Your task to perform on an android device: turn off notifications settings in the gmail app Image 0: 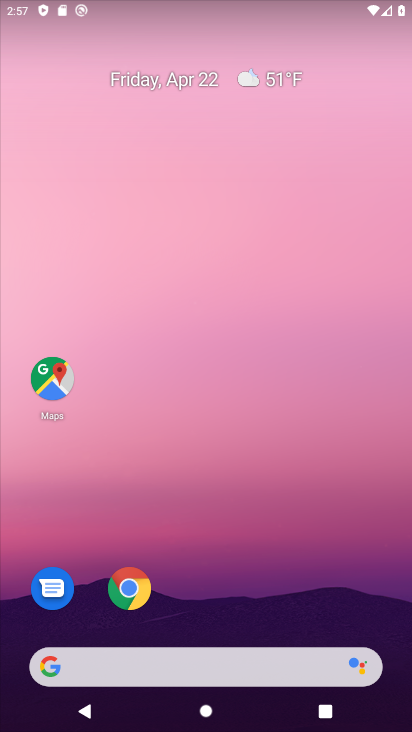
Step 0: drag from (358, 588) to (369, 111)
Your task to perform on an android device: turn off notifications settings in the gmail app Image 1: 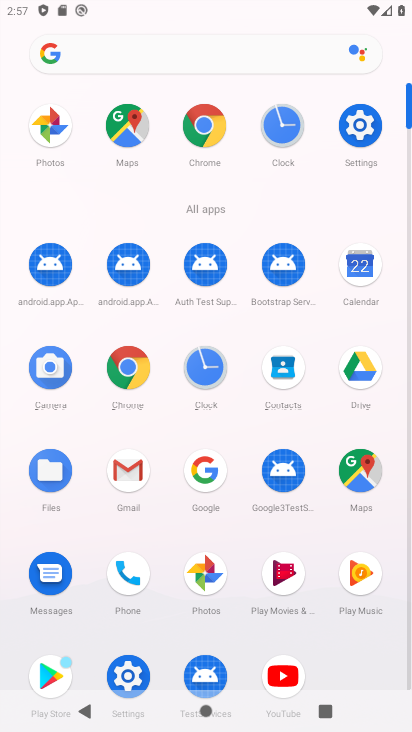
Step 1: click (136, 470)
Your task to perform on an android device: turn off notifications settings in the gmail app Image 2: 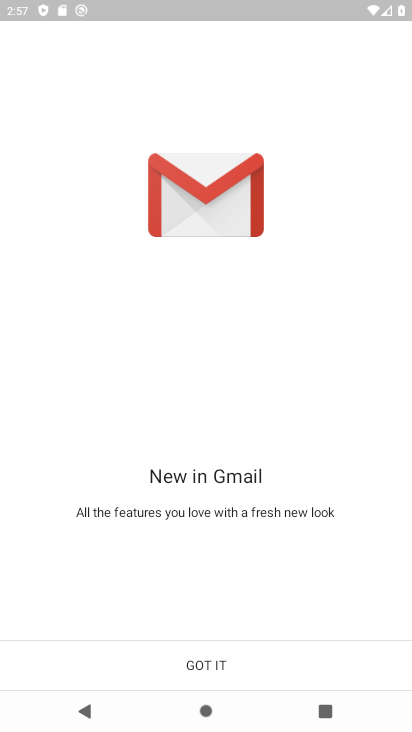
Step 2: click (242, 655)
Your task to perform on an android device: turn off notifications settings in the gmail app Image 3: 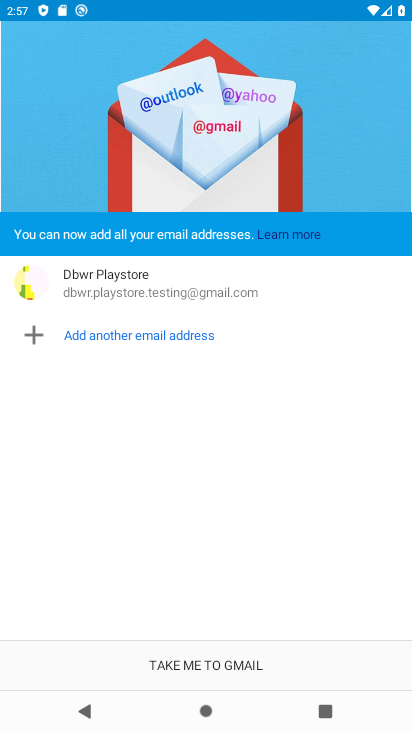
Step 3: click (252, 664)
Your task to perform on an android device: turn off notifications settings in the gmail app Image 4: 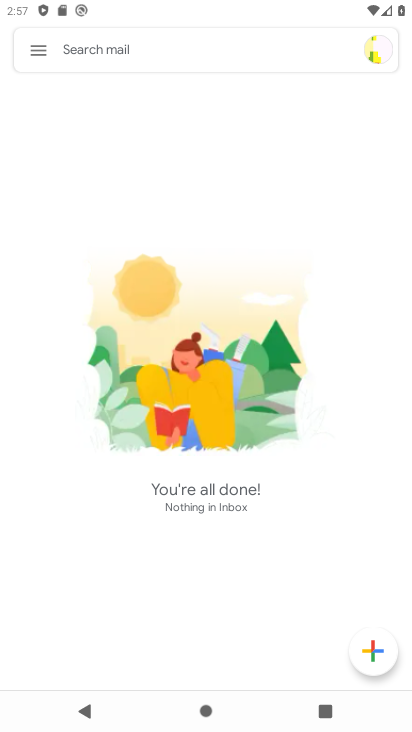
Step 4: click (37, 45)
Your task to perform on an android device: turn off notifications settings in the gmail app Image 5: 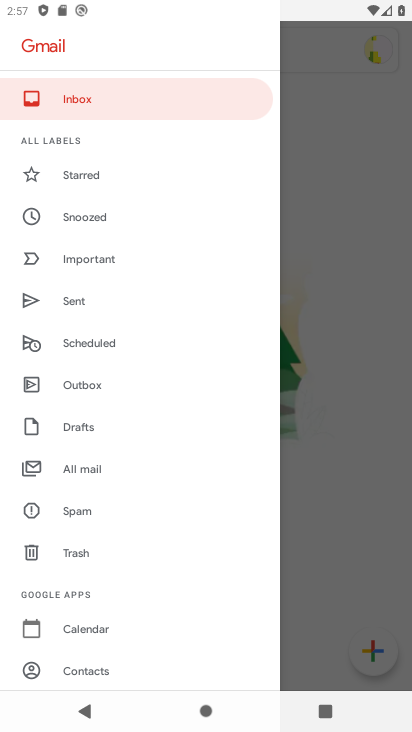
Step 5: drag from (177, 594) to (189, 348)
Your task to perform on an android device: turn off notifications settings in the gmail app Image 6: 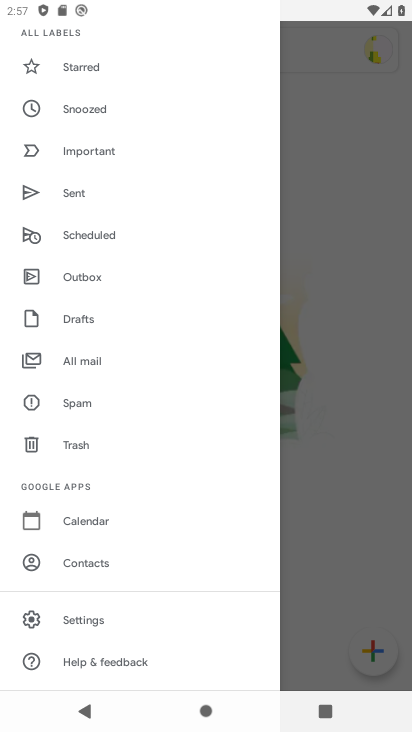
Step 6: click (112, 622)
Your task to perform on an android device: turn off notifications settings in the gmail app Image 7: 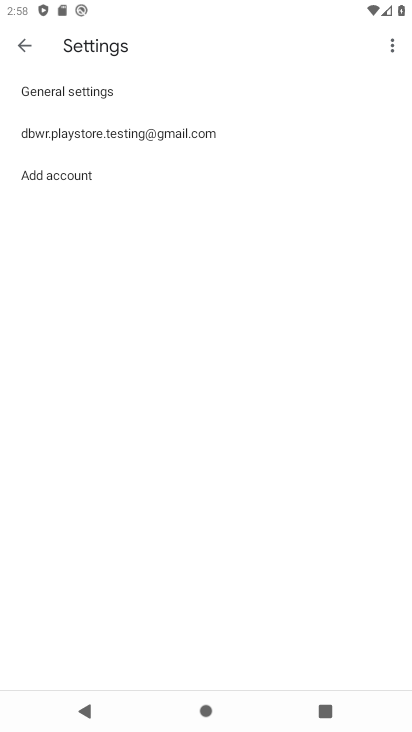
Step 7: click (181, 127)
Your task to perform on an android device: turn off notifications settings in the gmail app Image 8: 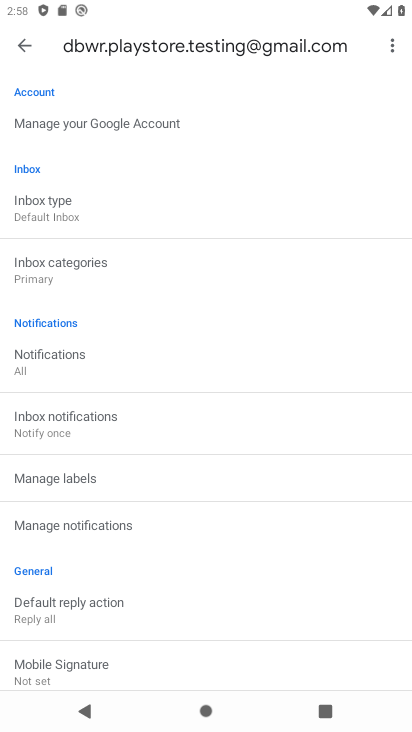
Step 8: drag from (251, 587) to (261, 429)
Your task to perform on an android device: turn off notifications settings in the gmail app Image 9: 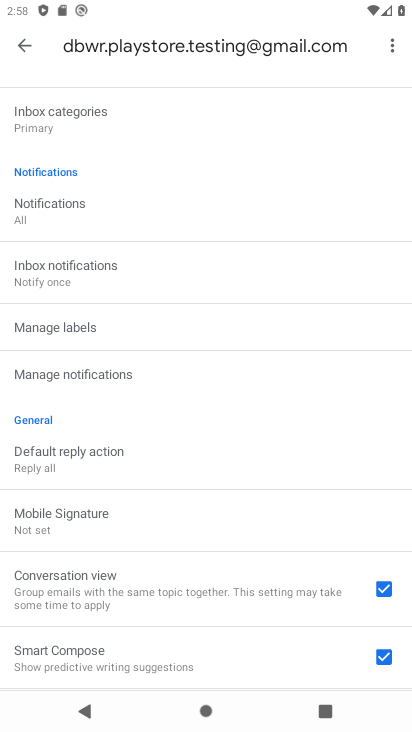
Step 9: drag from (258, 618) to (272, 419)
Your task to perform on an android device: turn off notifications settings in the gmail app Image 10: 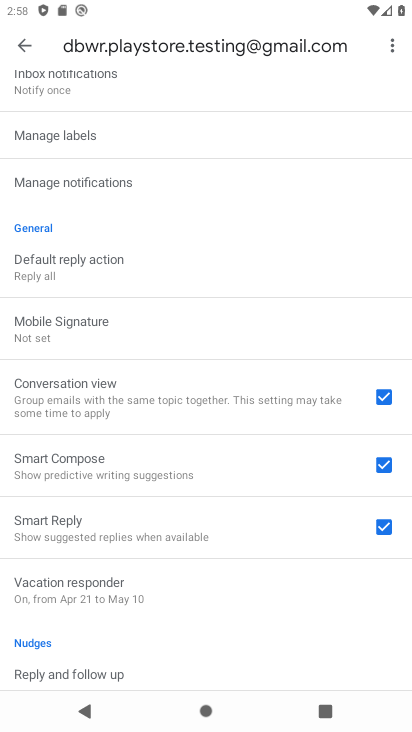
Step 10: drag from (244, 625) to (262, 371)
Your task to perform on an android device: turn off notifications settings in the gmail app Image 11: 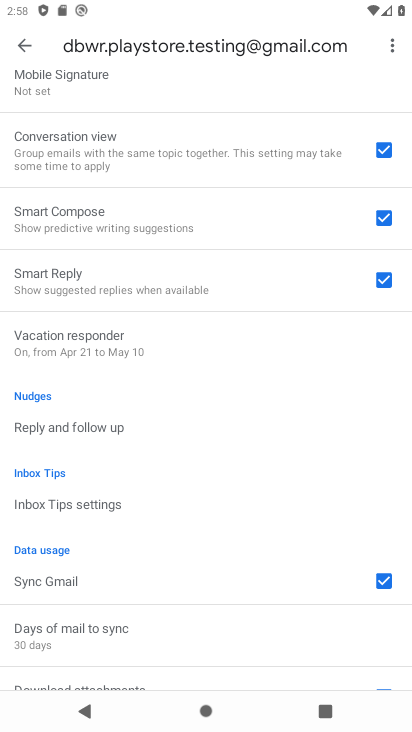
Step 11: drag from (242, 634) to (266, 355)
Your task to perform on an android device: turn off notifications settings in the gmail app Image 12: 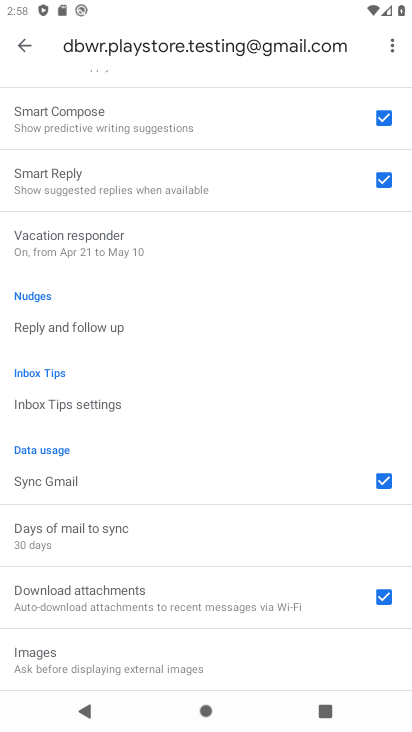
Step 12: drag from (263, 155) to (234, 423)
Your task to perform on an android device: turn off notifications settings in the gmail app Image 13: 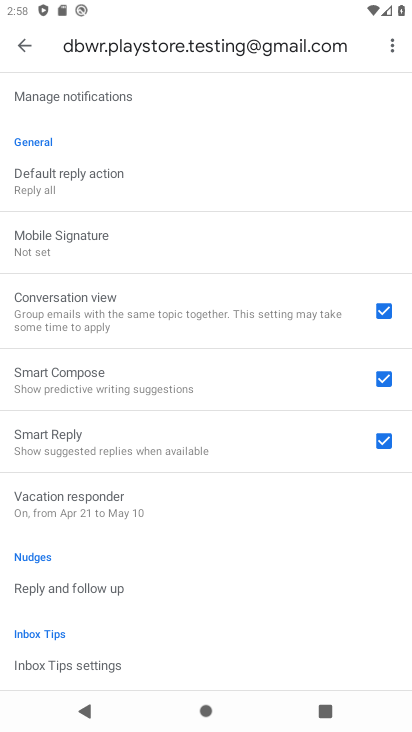
Step 13: drag from (212, 146) to (208, 327)
Your task to perform on an android device: turn off notifications settings in the gmail app Image 14: 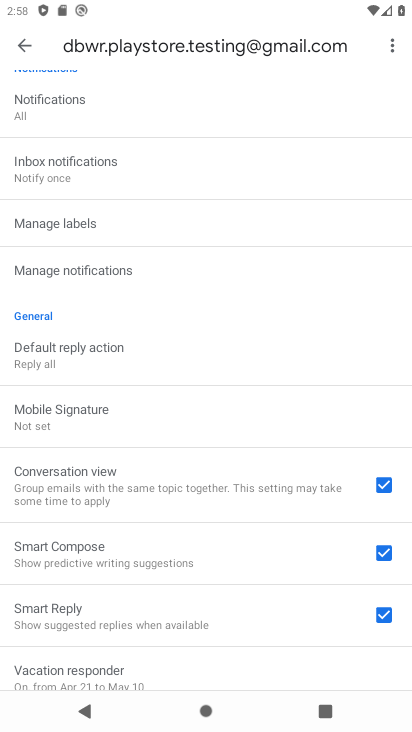
Step 14: click (105, 275)
Your task to perform on an android device: turn off notifications settings in the gmail app Image 15: 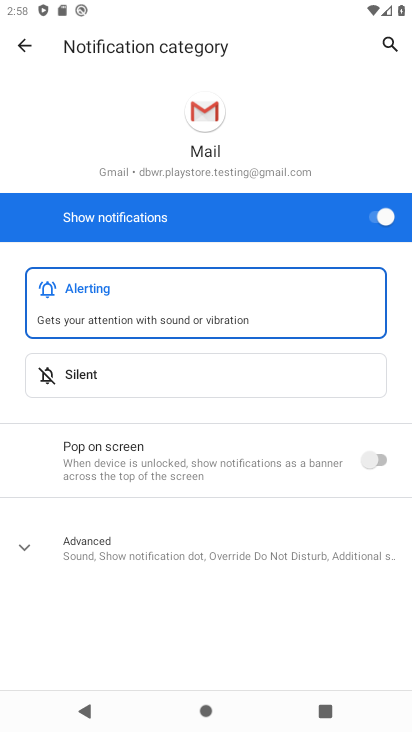
Step 15: click (388, 216)
Your task to perform on an android device: turn off notifications settings in the gmail app Image 16: 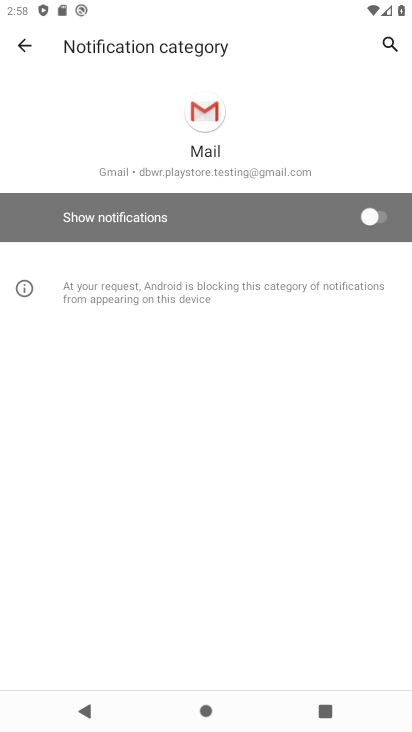
Step 16: task complete